Your task to perform on an android device: Do I have any events tomorrow? Image 0: 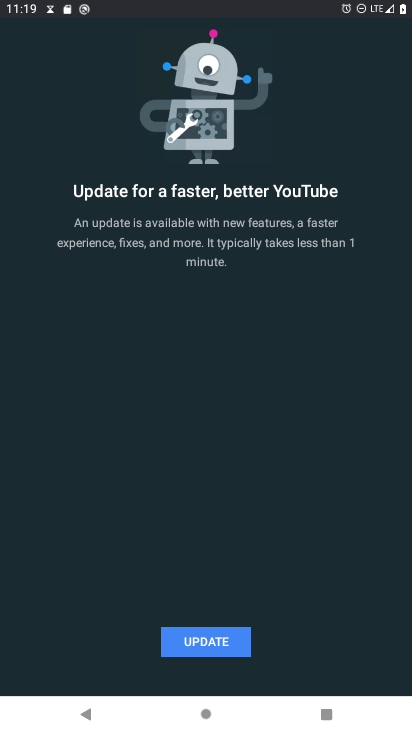
Step 0: press home button
Your task to perform on an android device: Do I have any events tomorrow? Image 1: 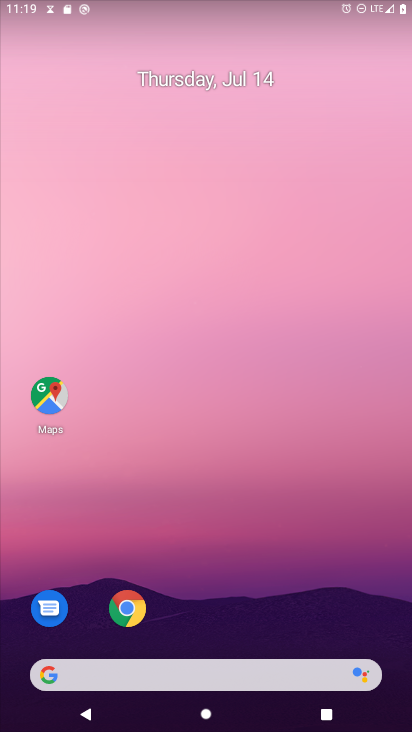
Step 1: drag from (244, 701) to (234, 344)
Your task to perform on an android device: Do I have any events tomorrow? Image 2: 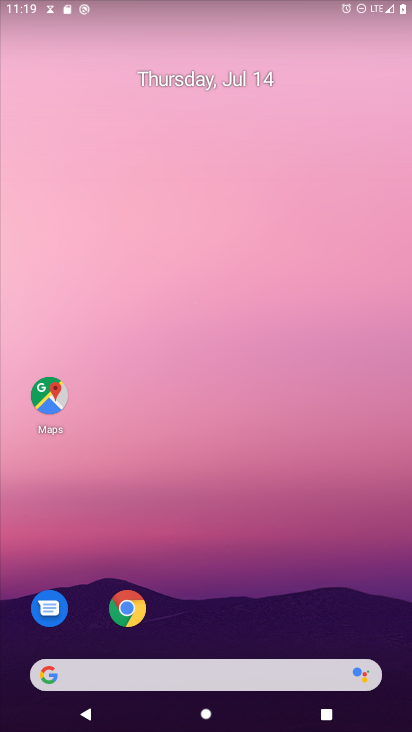
Step 2: drag from (238, 695) to (241, 80)
Your task to perform on an android device: Do I have any events tomorrow? Image 3: 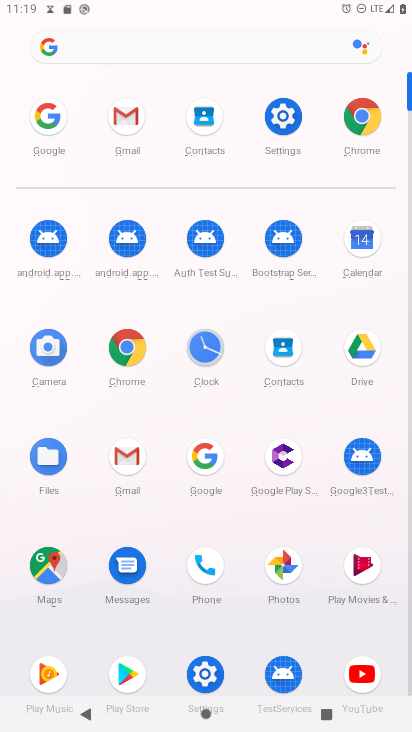
Step 3: click (366, 242)
Your task to perform on an android device: Do I have any events tomorrow? Image 4: 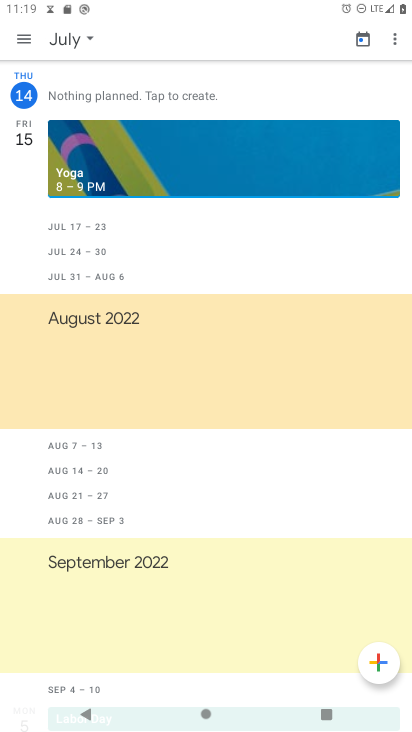
Step 4: click (83, 33)
Your task to perform on an android device: Do I have any events tomorrow? Image 5: 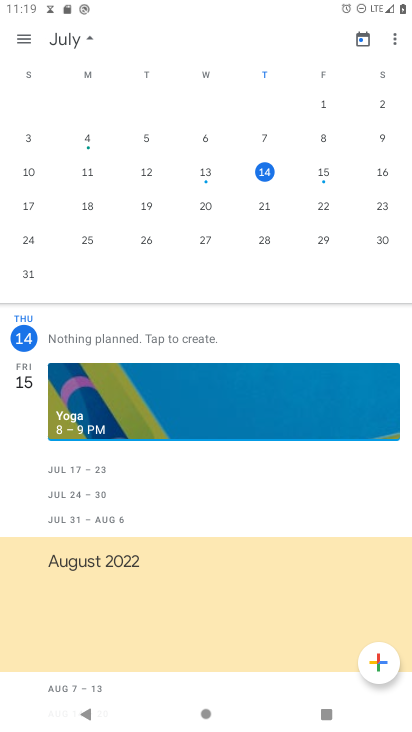
Step 5: click (323, 174)
Your task to perform on an android device: Do I have any events tomorrow? Image 6: 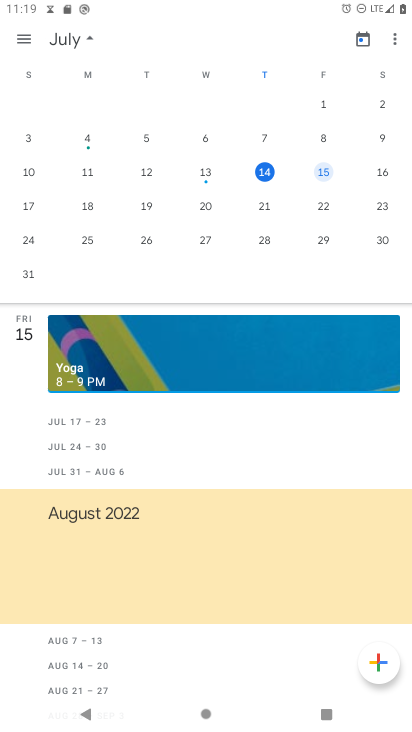
Step 6: click (28, 36)
Your task to perform on an android device: Do I have any events tomorrow? Image 7: 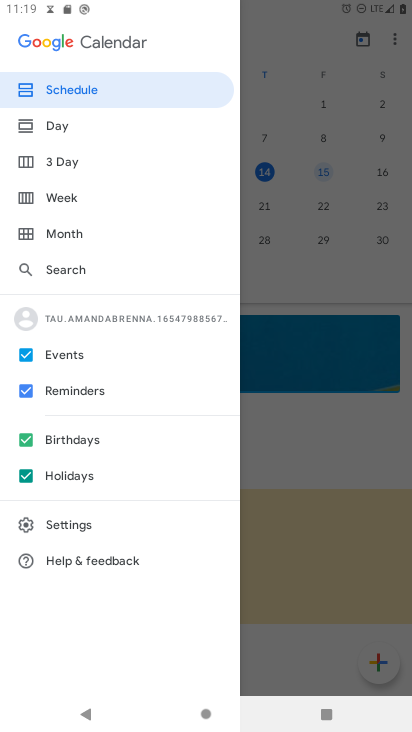
Step 7: click (29, 470)
Your task to perform on an android device: Do I have any events tomorrow? Image 8: 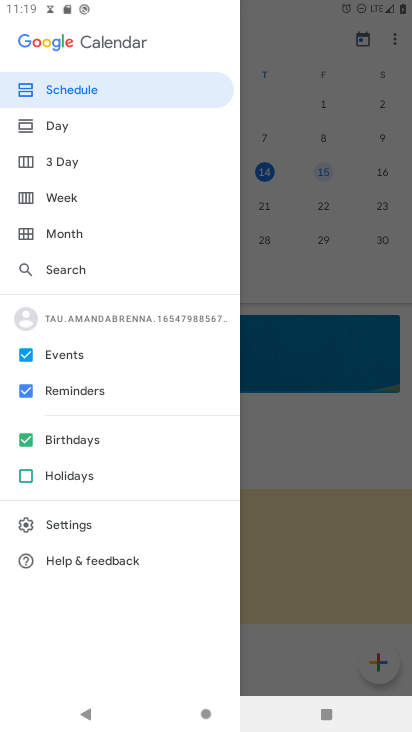
Step 8: click (26, 445)
Your task to perform on an android device: Do I have any events tomorrow? Image 9: 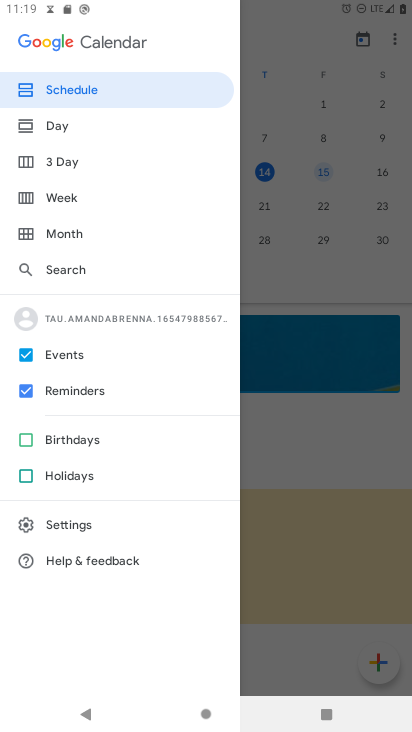
Step 9: click (27, 384)
Your task to perform on an android device: Do I have any events tomorrow? Image 10: 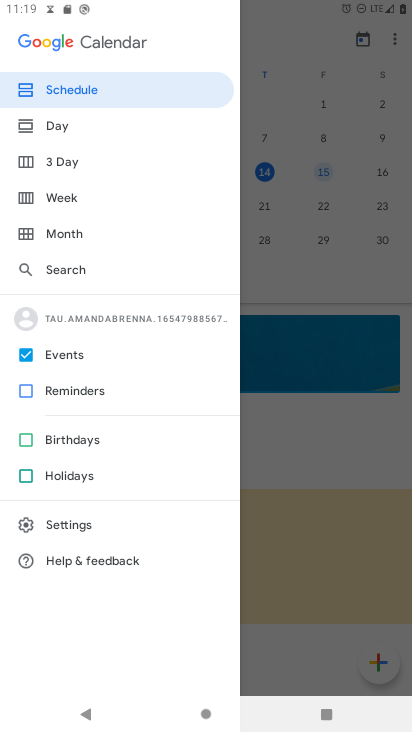
Step 10: click (328, 169)
Your task to perform on an android device: Do I have any events tomorrow? Image 11: 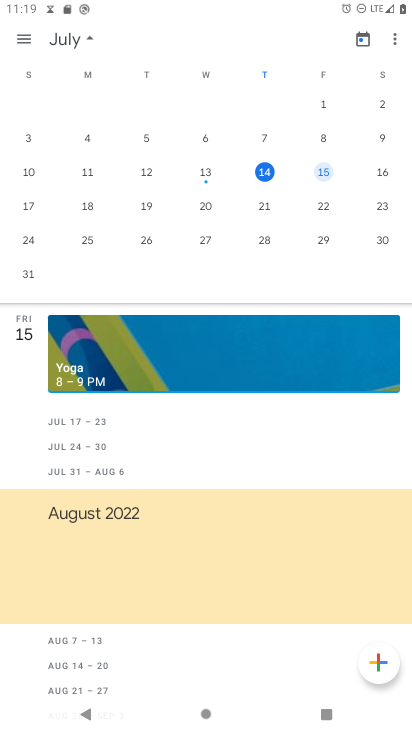
Step 11: task complete